Your task to perform on an android device: Open Chrome and go to settings Image 0: 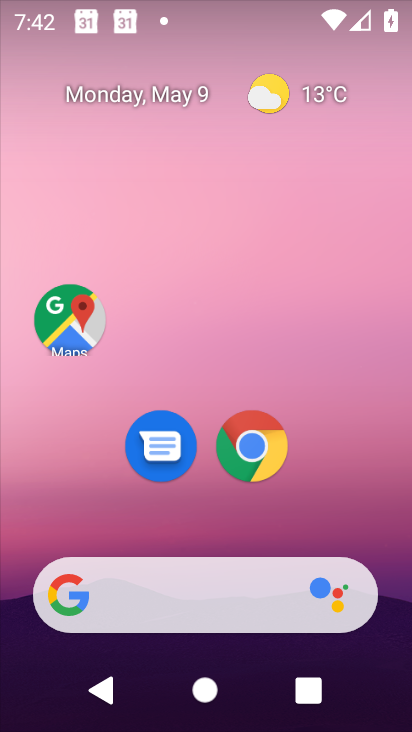
Step 0: click (236, 465)
Your task to perform on an android device: Open Chrome and go to settings Image 1: 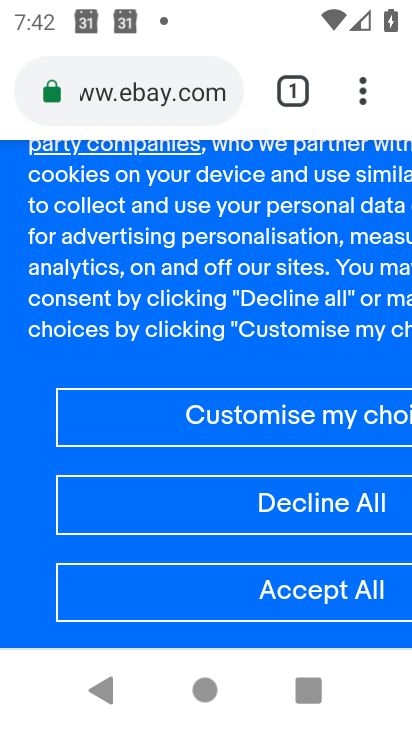
Step 1: task complete